Your task to perform on an android device: open chrome privacy settings Image 0: 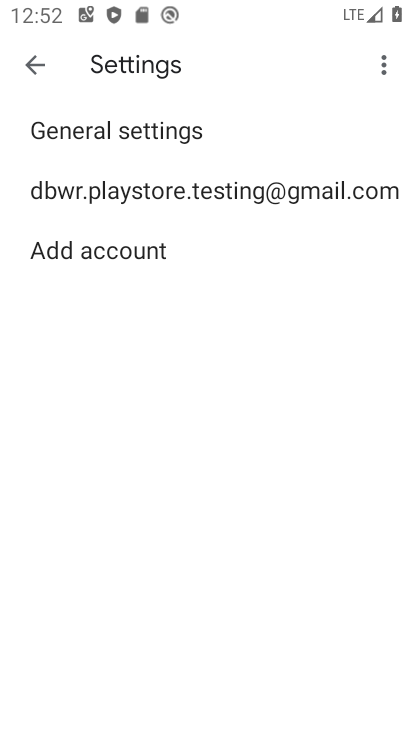
Step 0: click (138, 172)
Your task to perform on an android device: open chrome privacy settings Image 1: 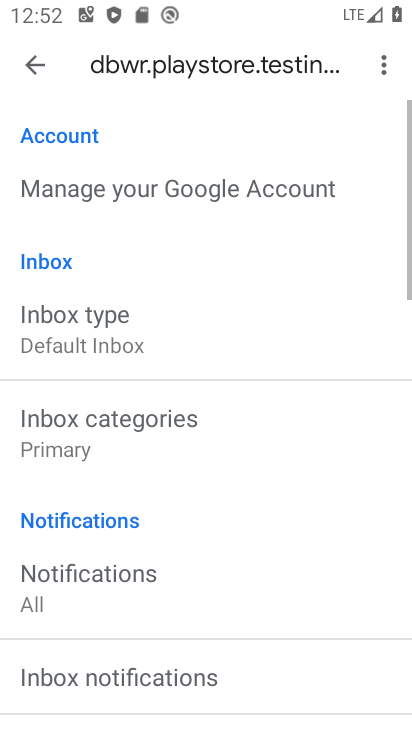
Step 1: drag from (149, 630) to (271, 29)
Your task to perform on an android device: open chrome privacy settings Image 2: 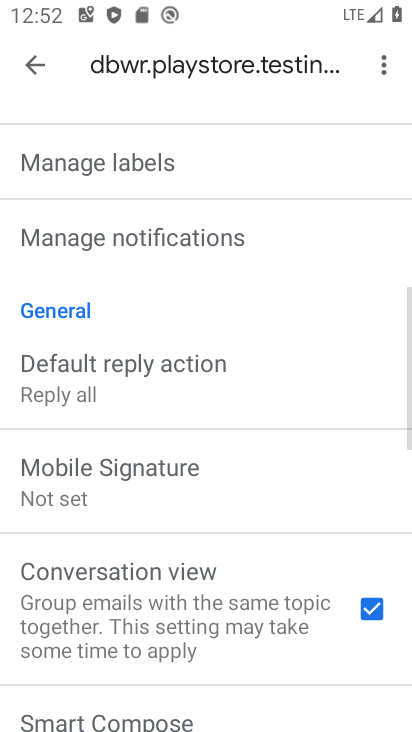
Step 2: click (32, 66)
Your task to perform on an android device: open chrome privacy settings Image 3: 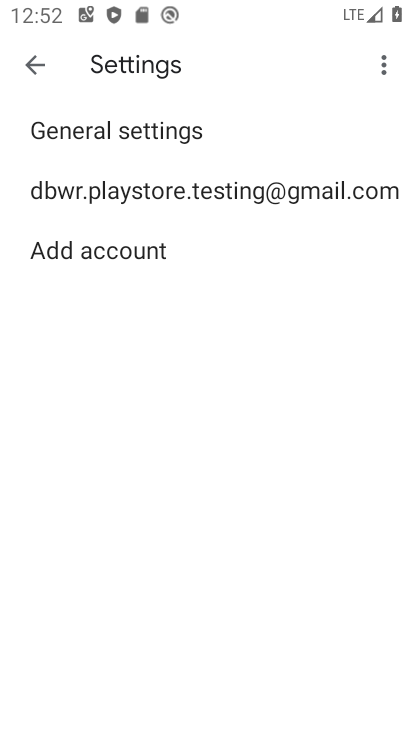
Step 3: click (40, 61)
Your task to perform on an android device: open chrome privacy settings Image 4: 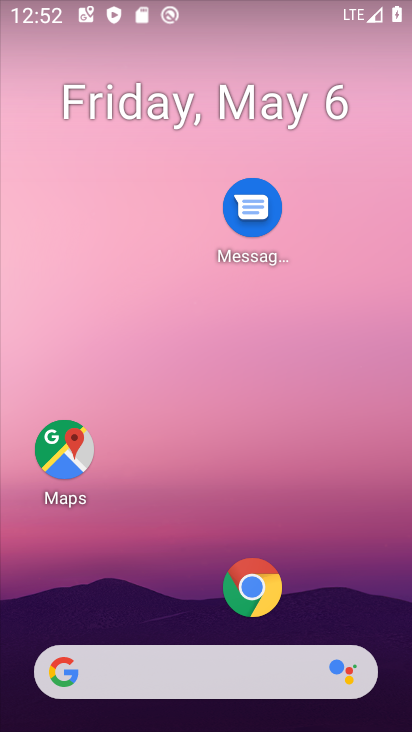
Step 4: click (258, 596)
Your task to perform on an android device: open chrome privacy settings Image 5: 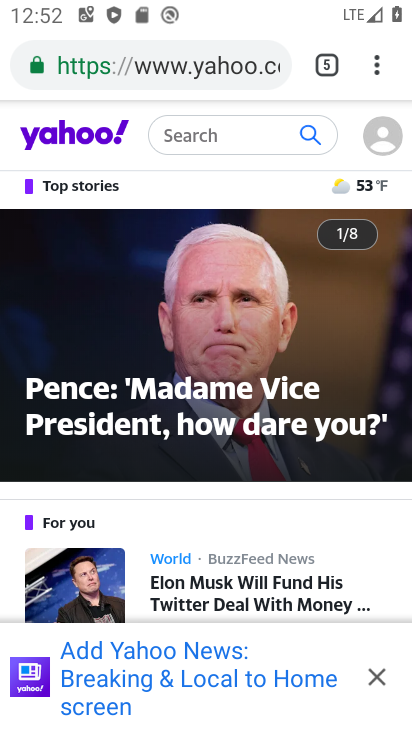
Step 5: drag from (373, 71) to (154, 623)
Your task to perform on an android device: open chrome privacy settings Image 6: 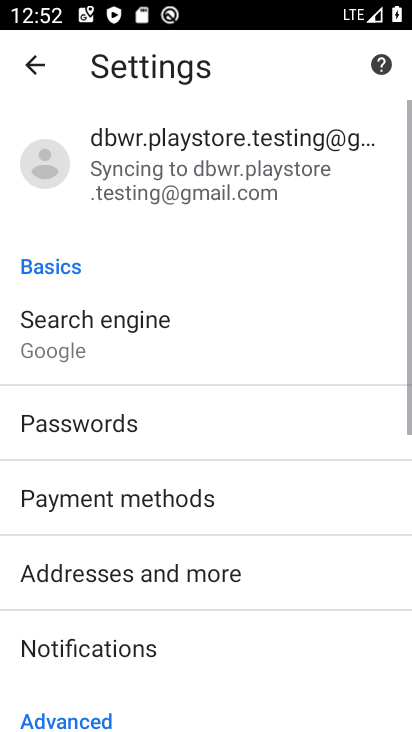
Step 6: drag from (141, 643) to (293, 31)
Your task to perform on an android device: open chrome privacy settings Image 7: 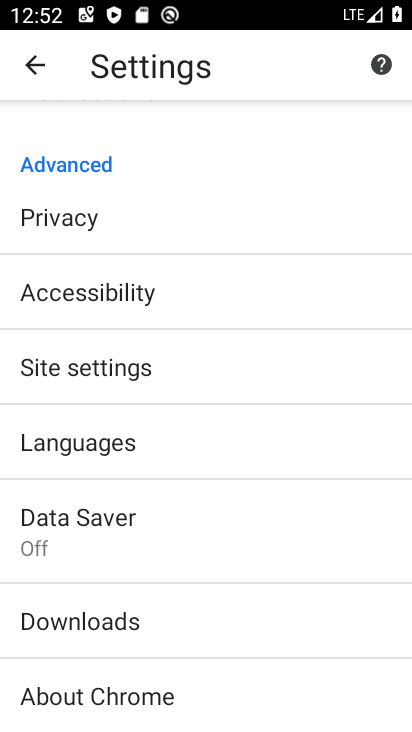
Step 7: drag from (127, 633) to (227, 201)
Your task to perform on an android device: open chrome privacy settings Image 8: 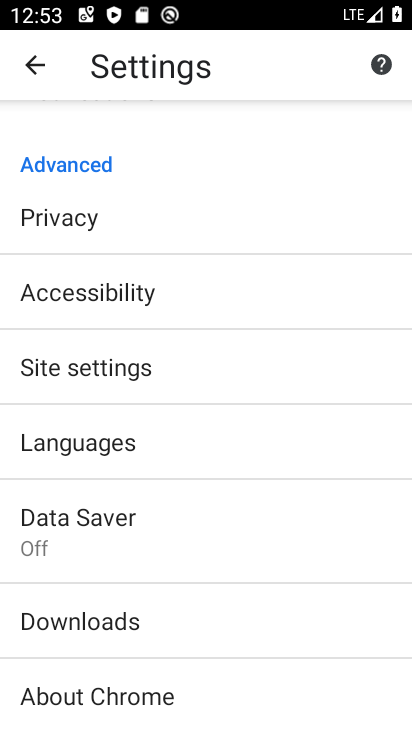
Step 8: click (83, 222)
Your task to perform on an android device: open chrome privacy settings Image 9: 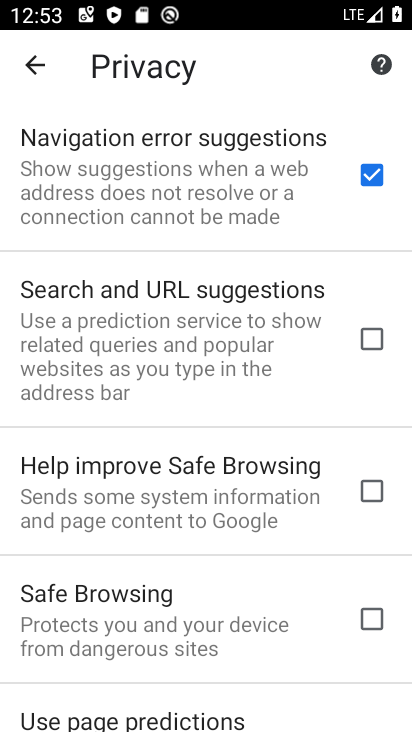
Step 9: task complete